Your task to perform on an android device: turn on translation in the chrome app Image 0: 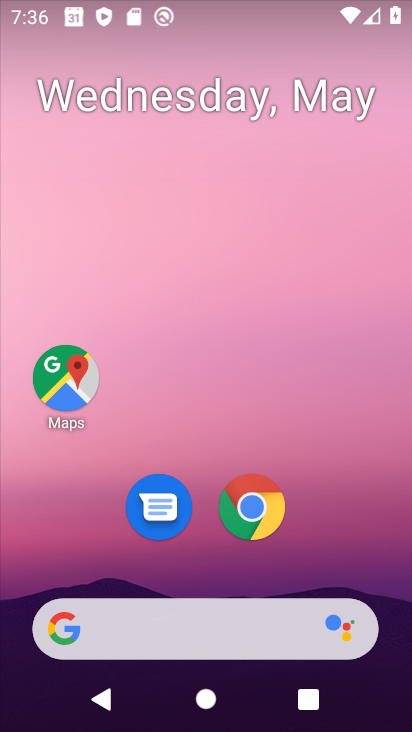
Step 0: click (252, 504)
Your task to perform on an android device: turn on translation in the chrome app Image 1: 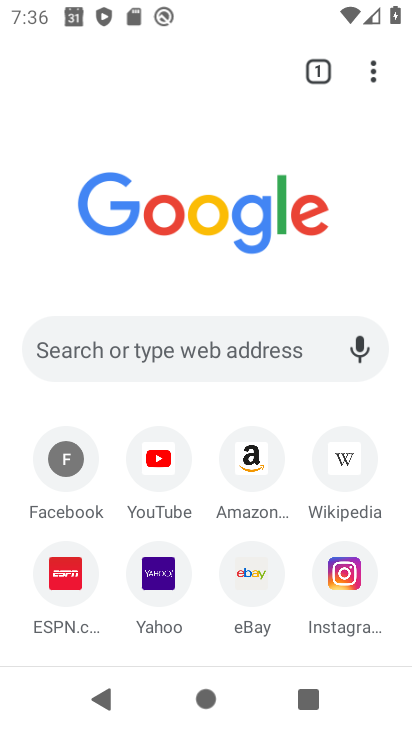
Step 1: click (377, 70)
Your task to perform on an android device: turn on translation in the chrome app Image 2: 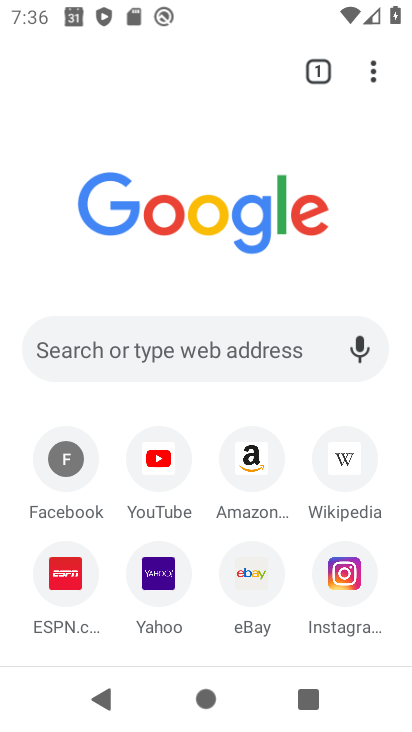
Step 2: click (377, 70)
Your task to perform on an android device: turn on translation in the chrome app Image 3: 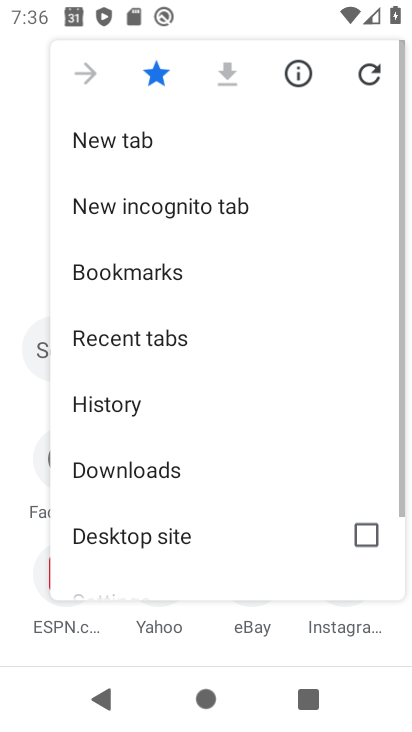
Step 3: drag from (213, 534) to (242, 228)
Your task to perform on an android device: turn on translation in the chrome app Image 4: 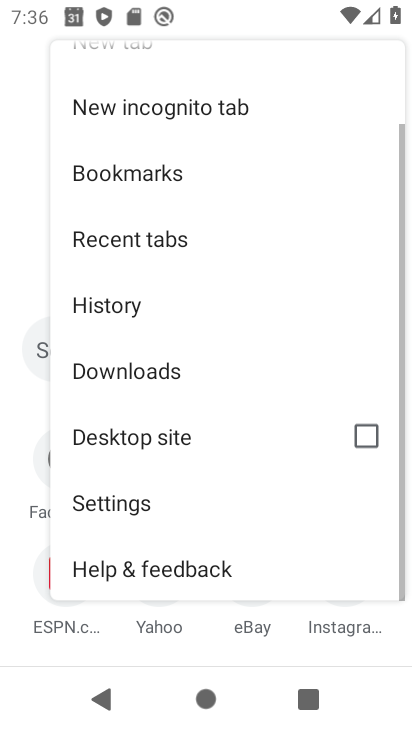
Step 4: click (165, 504)
Your task to perform on an android device: turn on translation in the chrome app Image 5: 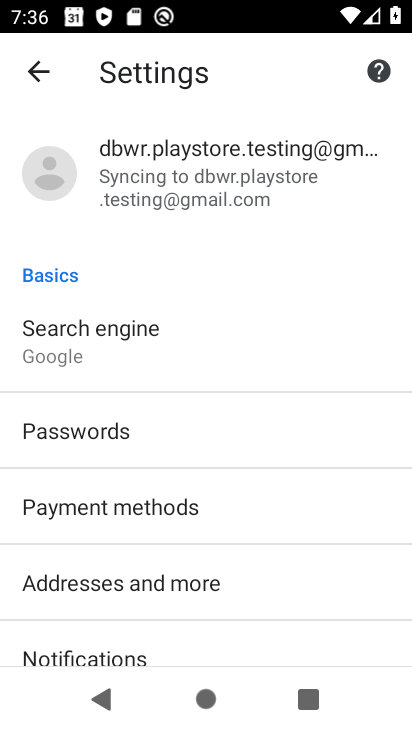
Step 5: drag from (187, 535) to (221, 252)
Your task to perform on an android device: turn on translation in the chrome app Image 6: 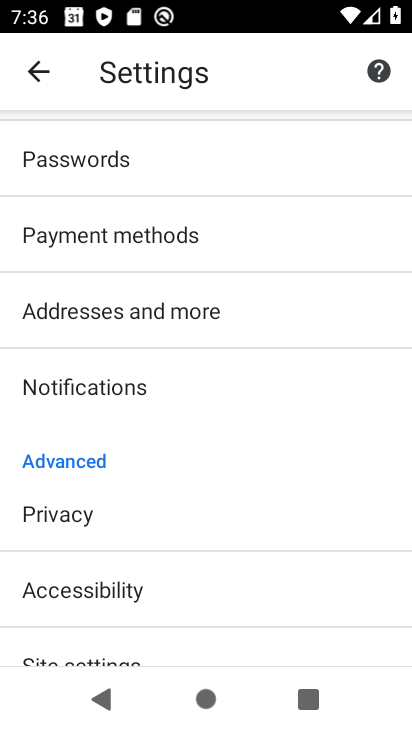
Step 6: drag from (157, 609) to (176, 315)
Your task to perform on an android device: turn on translation in the chrome app Image 7: 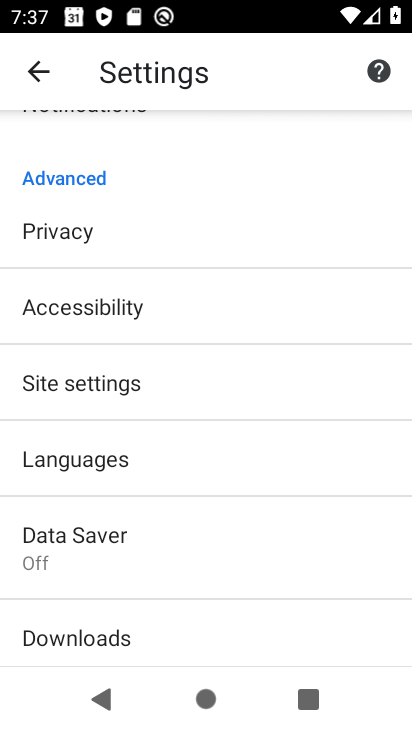
Step 7: click (112, 451)
Your task to perform on an android device: turn on translation in the chrome app Image 8: 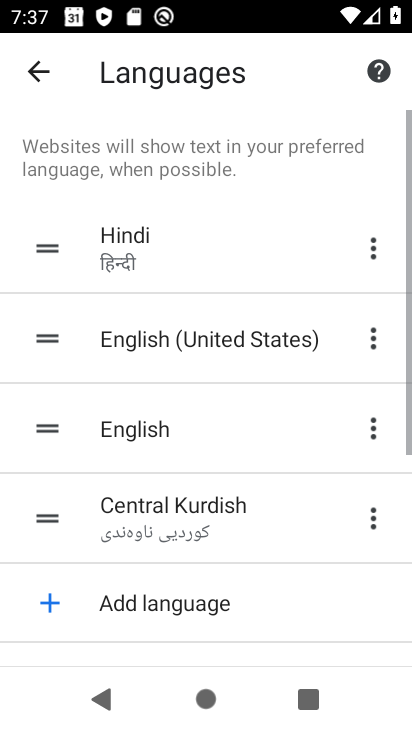
Step 8: drag from (276, 612) to (287, 255)
Your task to perform on an android device: turn on translation in the chrome app Image 9: 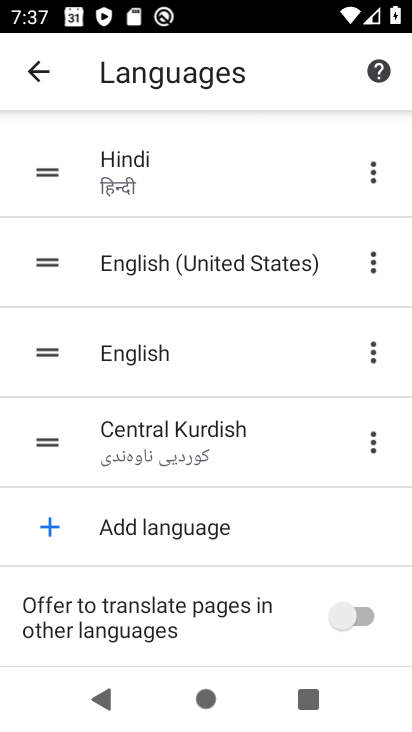
Step 9: click (370, 610)
Your task to perform on an android device: turn on translation in the chrome app Image 10: 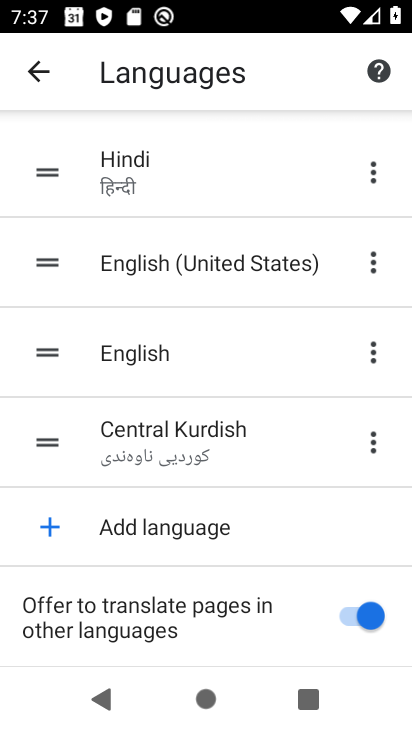
Step 10: task complete